Your task to perform on an android device: Go to privacy settings Image 0: 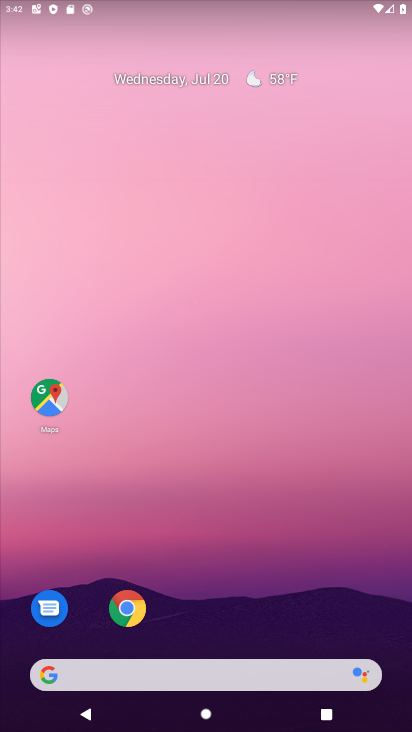
Step 0: drag from (301, 613) to (236, 80)
Your task to perform on an android device: Go to privacy settings Image 1: 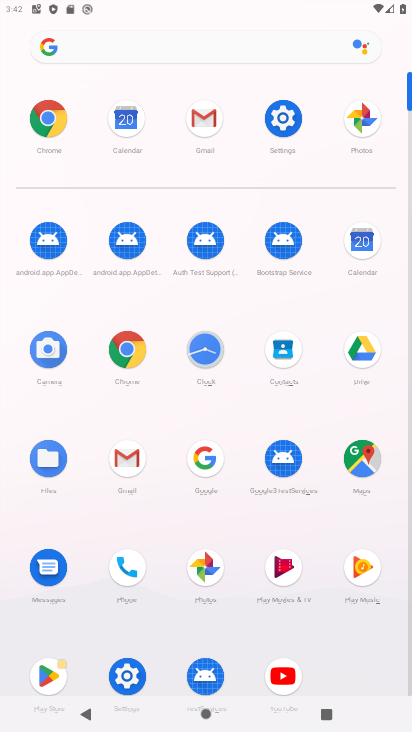
Step 1: click (295, 129)
Your task to perform on an android device: Go to privacy settings Image 2: 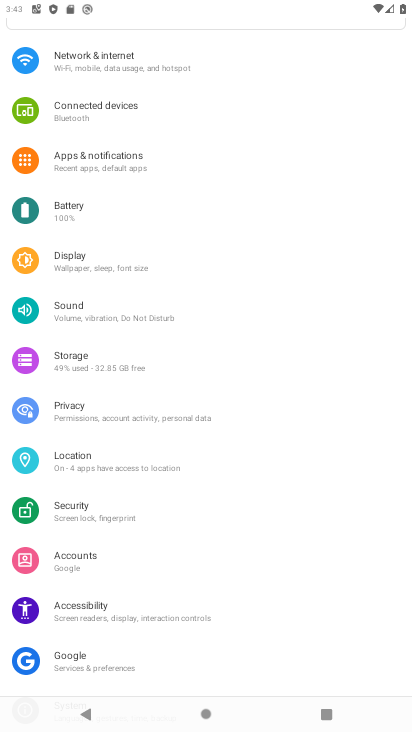
Step 2: click (111, 423)
Your task to perform on an android device: Go to privacy settings Image 3: 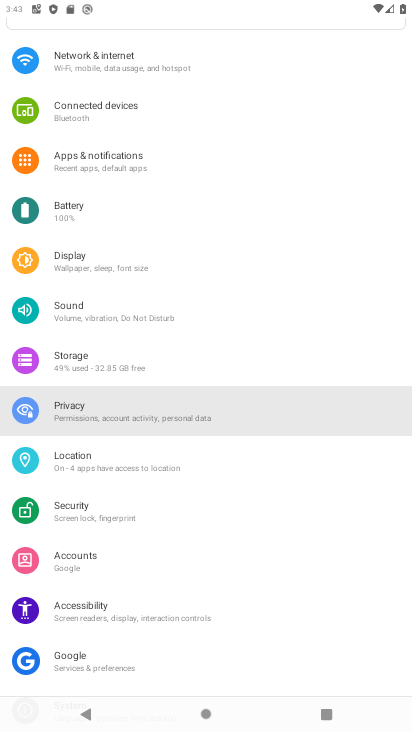
Step 3: task complete